Your task to perform on an android device: Check the weather Image 0: 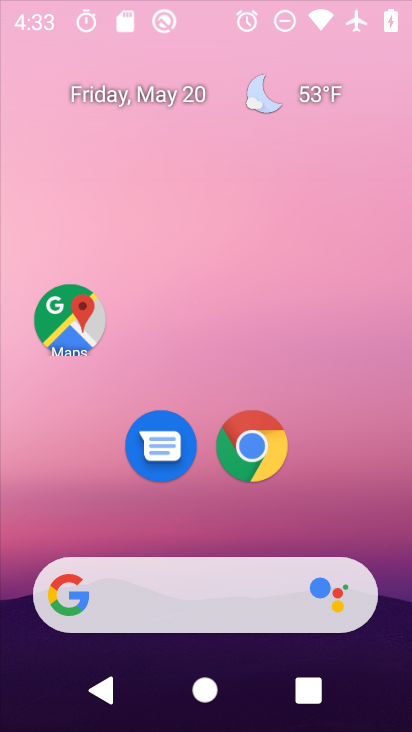
Step 0: drag from (358, 349) to (352, 80)
Your task to perform on an android device: Check the weather Image 1: 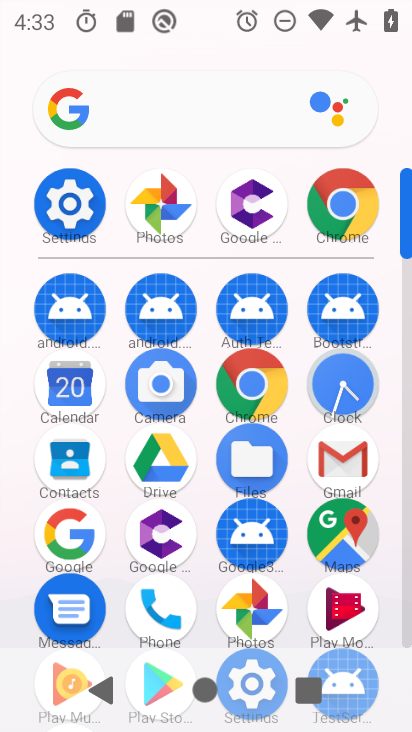
Step 1: click (77, 114)
Your task to perform on an android device: Check the weather Image 2: 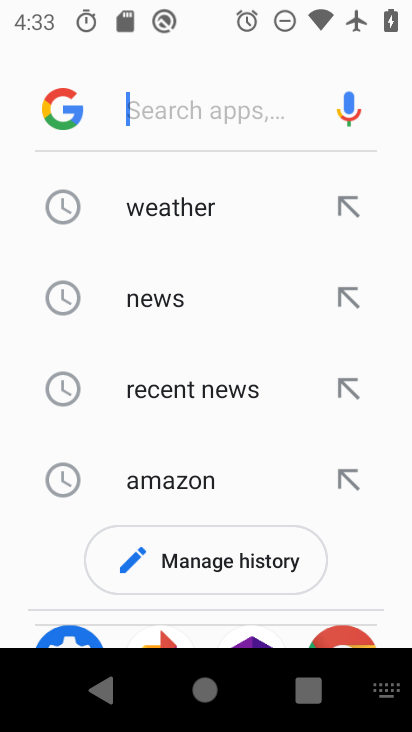
Step 2: click (77, 111)
Your task to perform on an android device: Check the weather Image 3: 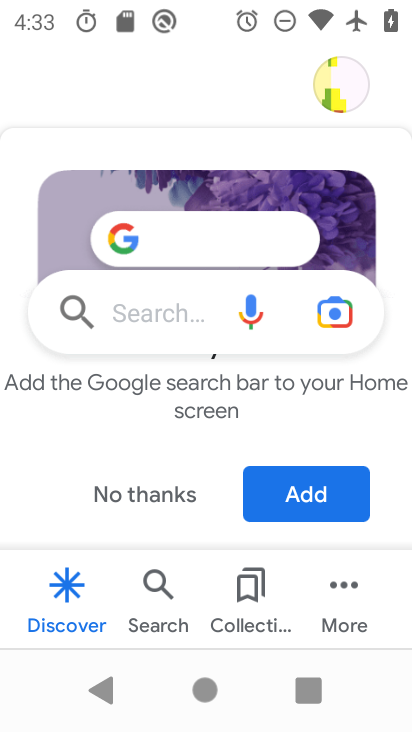
Step 3: click (117, 491)
Your task to perform on an android device: Check the weather Image 4: 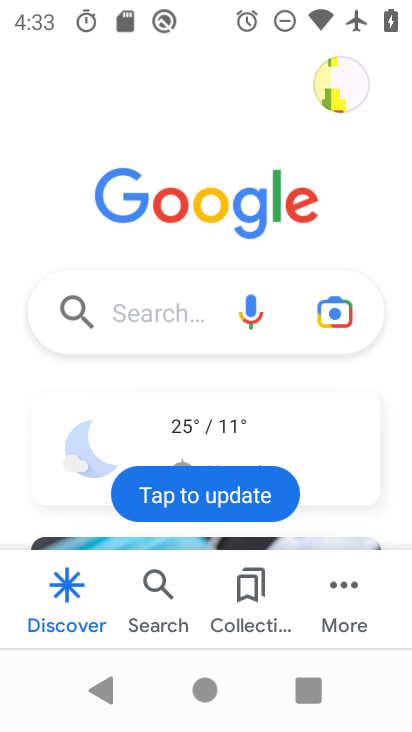
Step 4: click (72, 439)
Your task to perform on an android device: Check the weather Image 5: 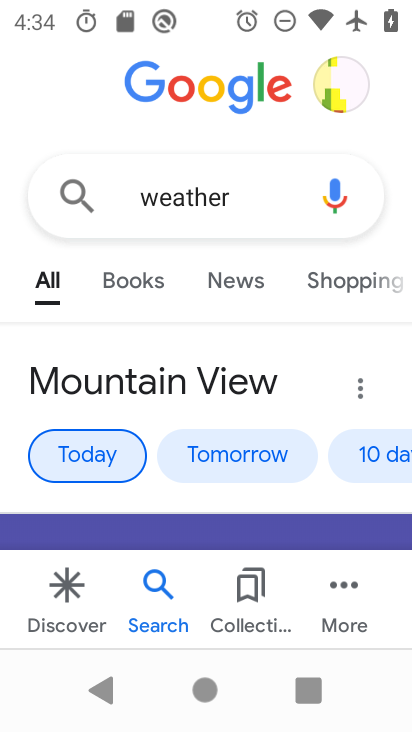
Step 5: task complete